Your task to perform on an android device: Open calendar and show me the first week of next month Image 0: 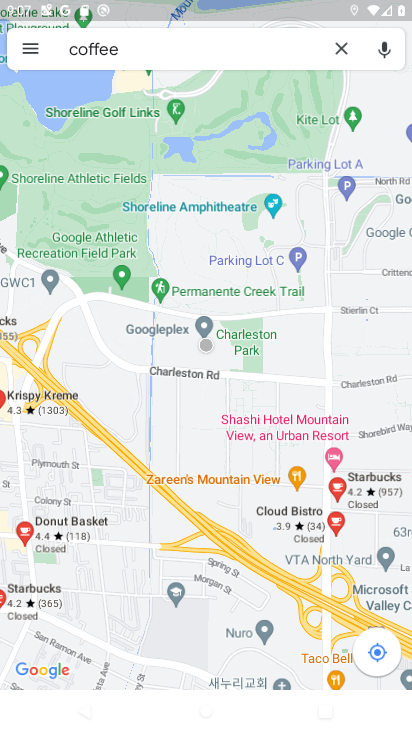
Step 0: click (338, 167)
Your task to perform on an android device: Open calendar and show me the first week of next month Image 1: 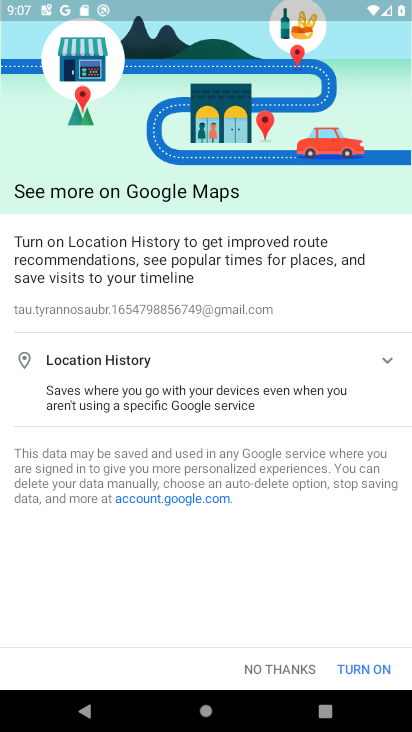
Step 1: press back button
Your task to perform on an android device: Open calendar and show me the first week of next month Image 2: 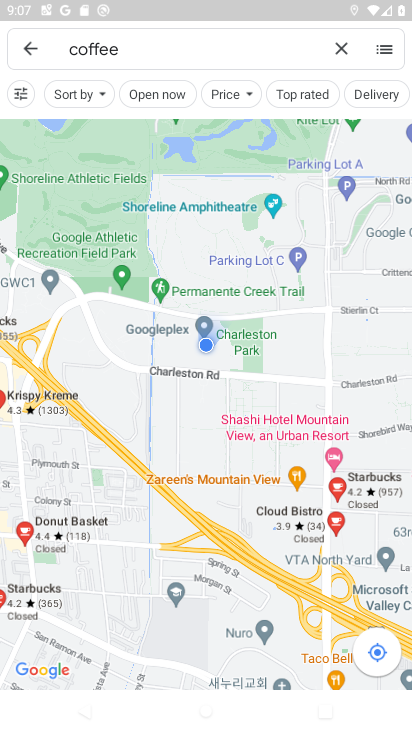
Step 2: press home button
Your task to perform on an android device: Open calendar and show me the first week of next month Image 3: 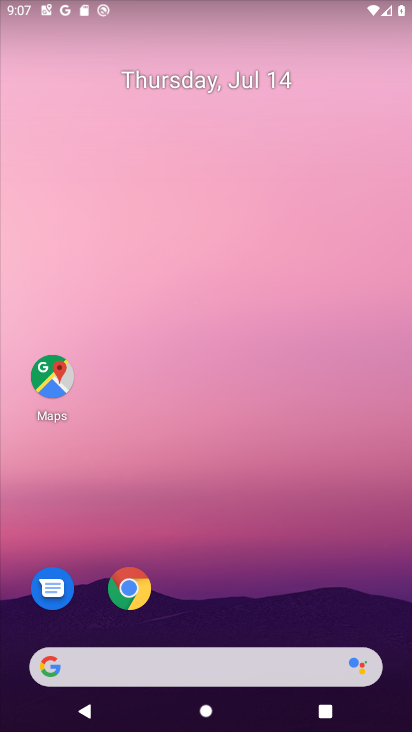
Step 3: drag from (249, 538) to (173, 83)
Your task to perform on an android device: Open calendar and show me the first week of next month Image 4: 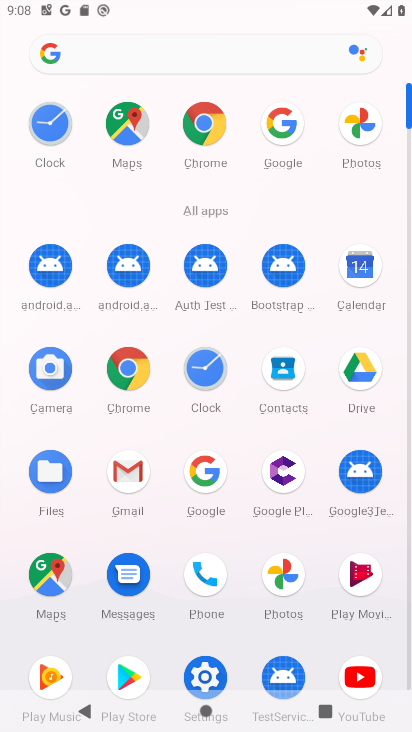
Step 4: click (355, 270)
Your task to perform on an android device: Open calendar and show me the first week of next month Image 5: 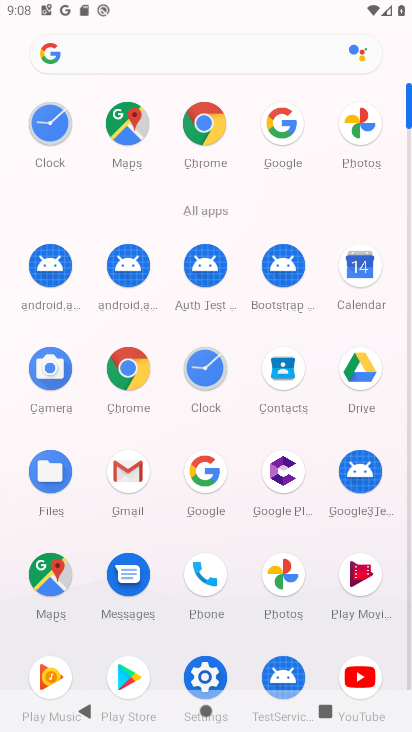
Step 5: click (357, 266)
Your task to perform on an android device: Open calendar and show me the first week of next month Image 6: 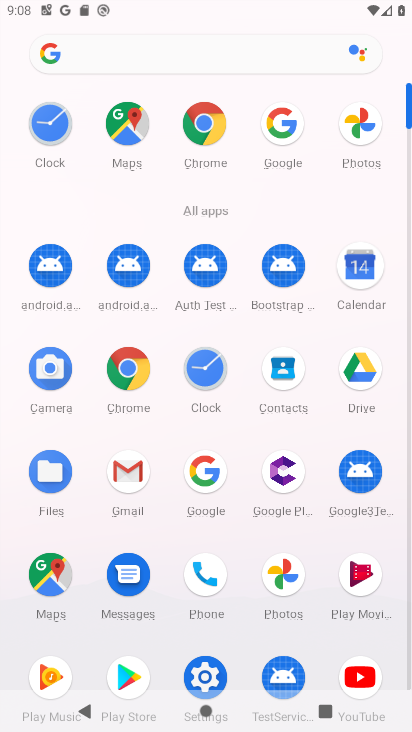
Step 6: click (358, 265)
Your task to perform on an android device: Open calendar and show me the first week of next month Image 7: 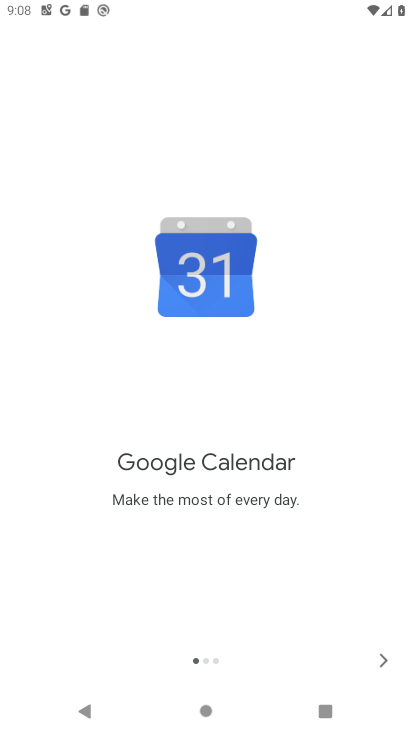
Step 7: click (379, 662)
Your task to perform on an android device: Open calendar and show me the first week of next month Image 8: 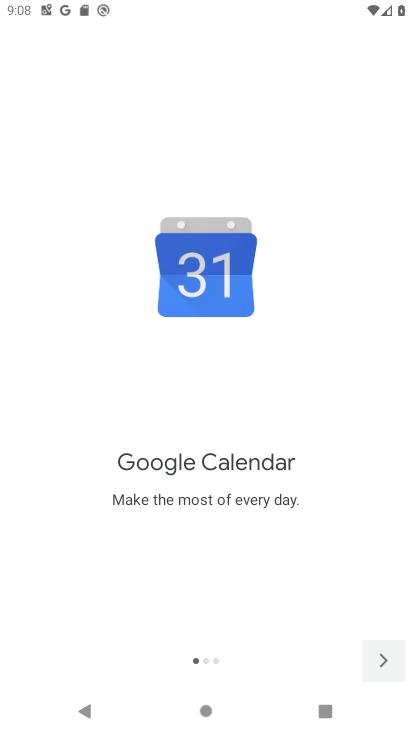
Step 8: click (384, 656)
Your task to perform on an android device: Open calendar and show me the first week of next month Image 9: 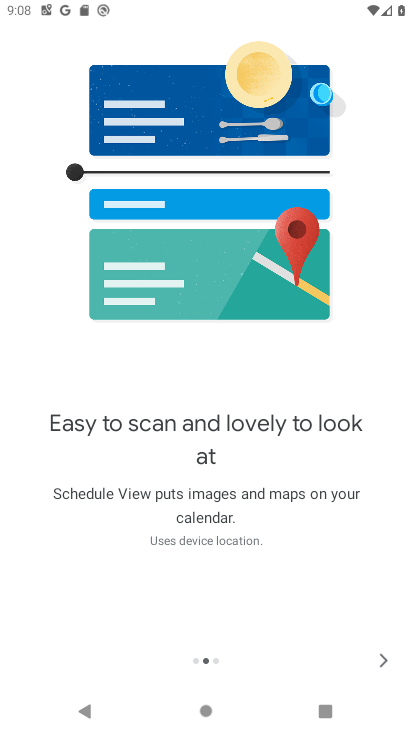
Step 9: click (384, 656)
Your task to perform on an android device: Open calendar and show me the first week of next month Image 10: 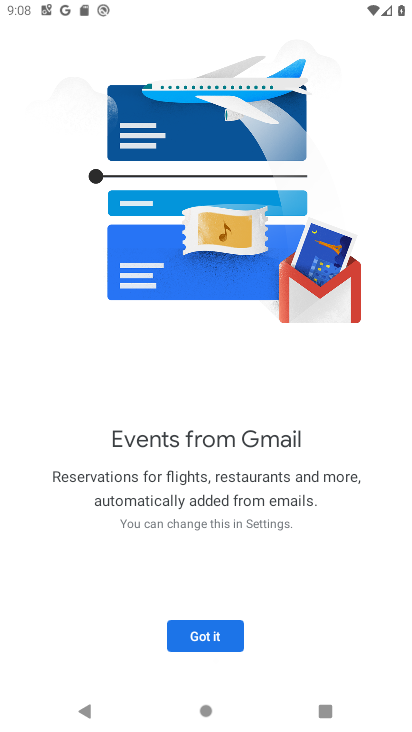
Step 10: click (385, 659)
Your task to perform on an android device: Open calendar and show me the first week of next month Image 11: 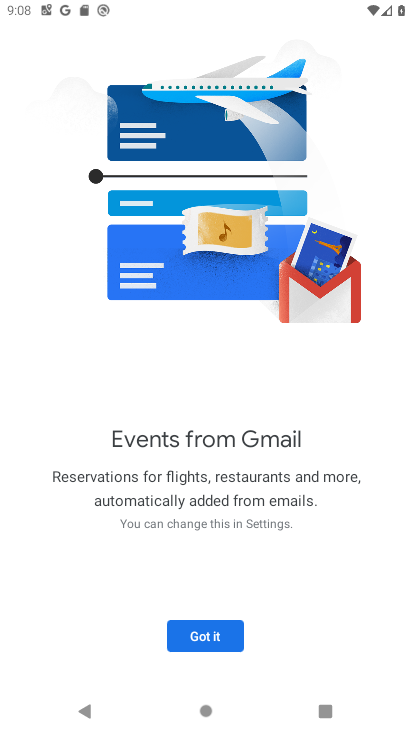
Step 11: click (385, 659)
Your task to perform on an android device: Open calendar and show me the first week of next month Image 12: 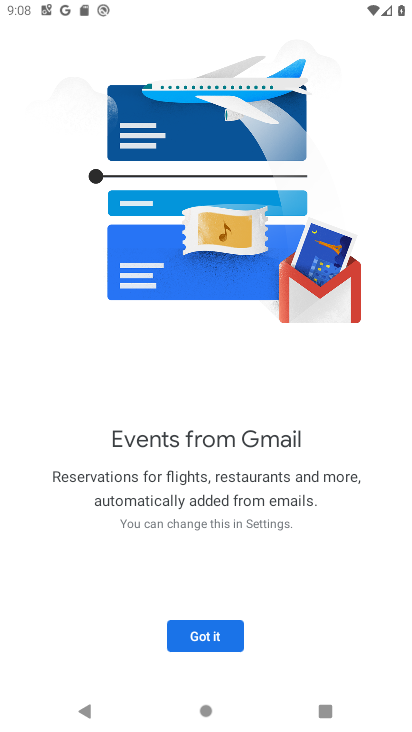
Step 12: click (192, 633)
Your task to perform on an android device: Open calendar and show me the first week of next month Image 13: 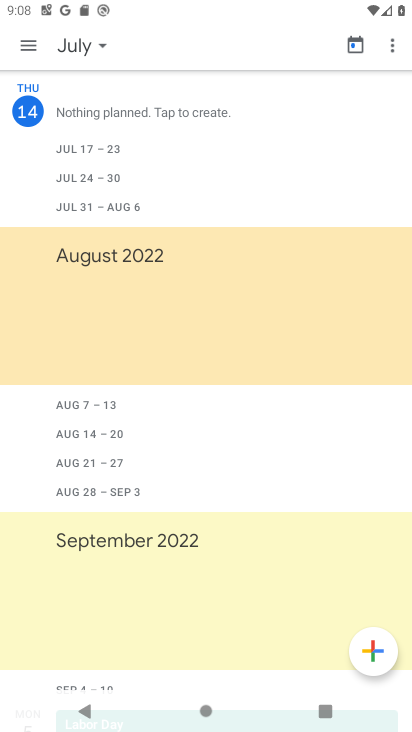
Step 13: click (99, 43)
Your task to perform on an android device: Open calendar and show me the first week of next month Image 14: 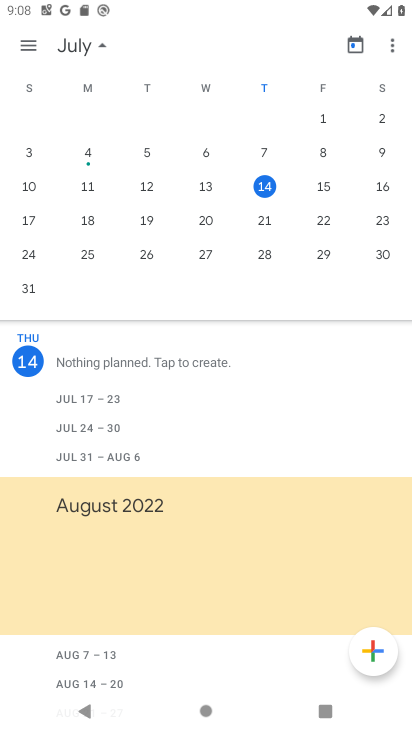
Step 14: drag from (345, 177) to (0, 152)
Your task to perform on an android device: Open calendar and show me the first week of next month Image 15: 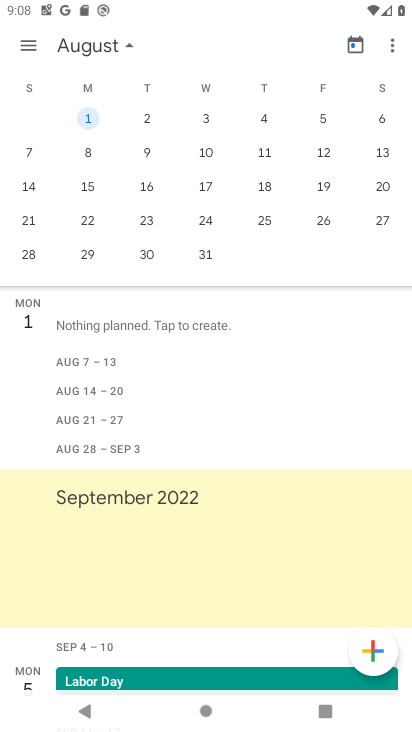
Step 15: click (144, 109)
Your task to perform on an android device: Open calendar and show me the first week of next month Image 16: 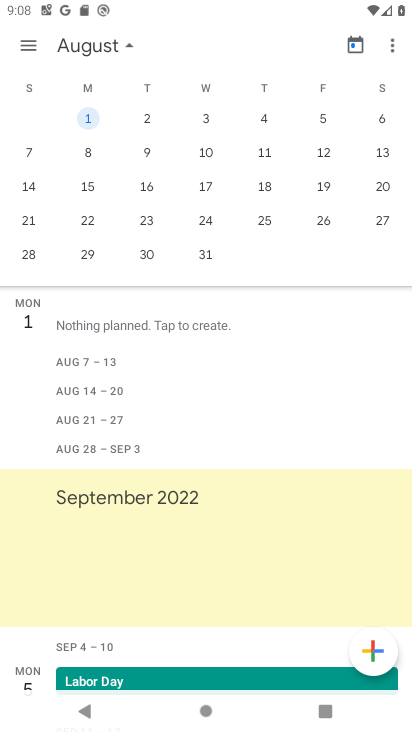
Step 16: click (145, 115)
Your task to perform on an android device: Open calendar and show me the first week of next month Image 17: 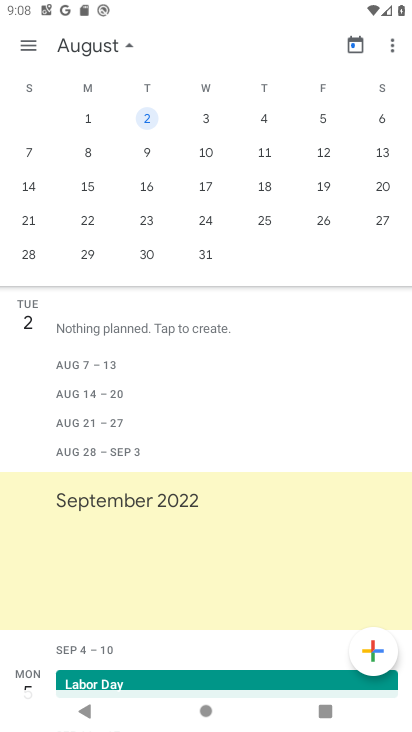
Step 17: click (146, 115)
Your task to perform on an android device: Open calendar and show me the first week of next month Image 18: 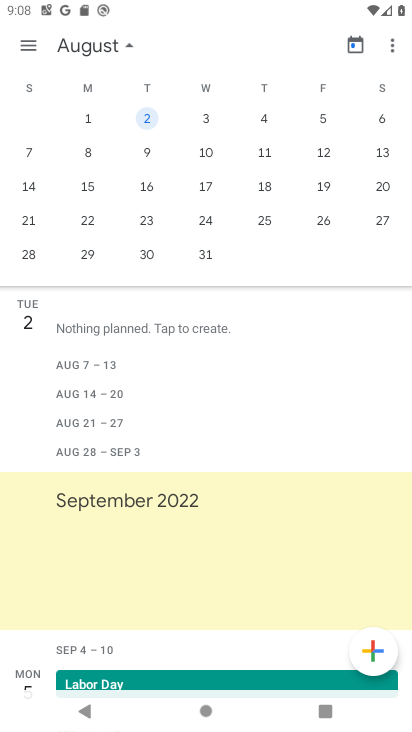
Step 18: click (148, 123)
Your task to perform on an android device: Open calendar and show me the first week of next month Image 19: 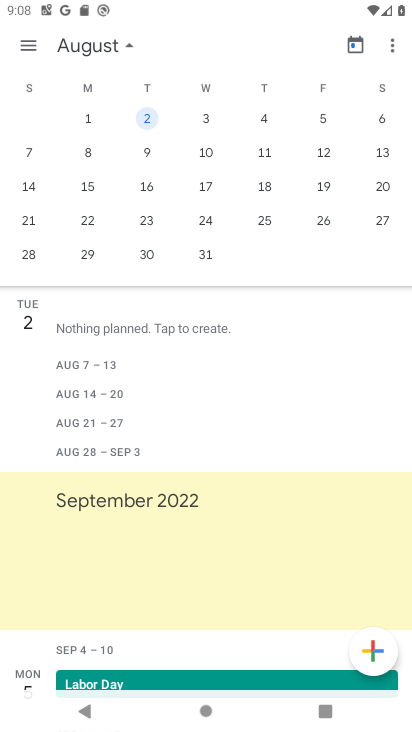
Step 19: task complete